Your task to perform on an android device: turn off airplane mode Image 0: 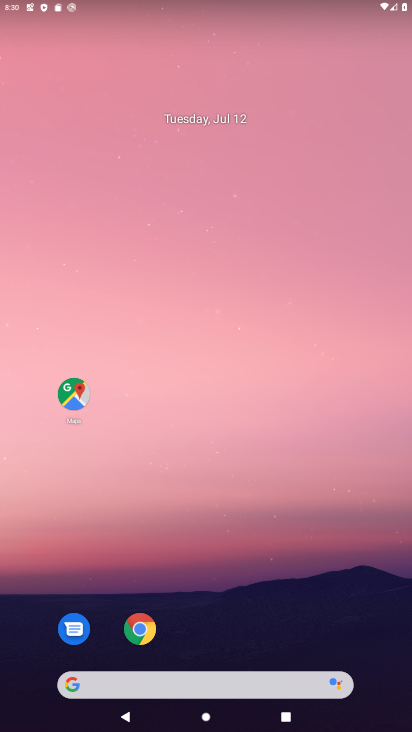
Step 0: drag from (259, 592) to (261, 122)
Your task to perform on an android device: turn off airplane mode Image 1: 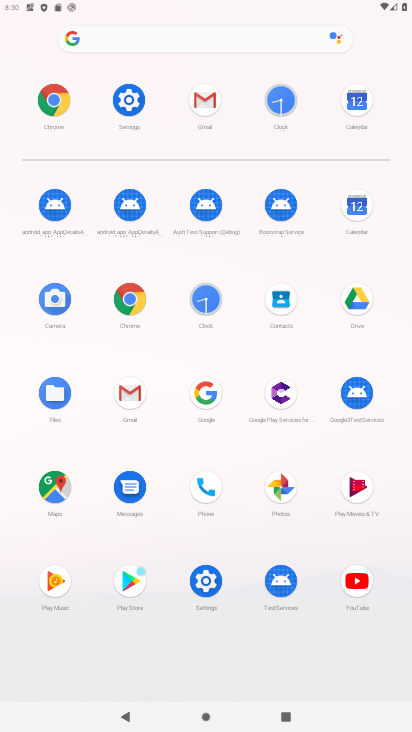
Step 1: click (119, 96)
Your task to perform on an android device: turn off airplane mode Image 2: 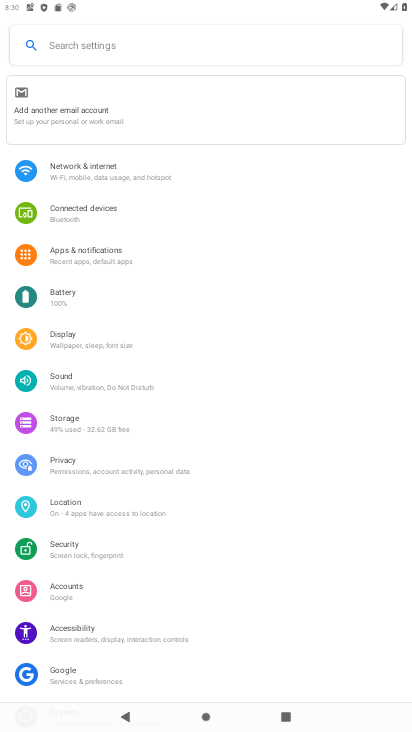
Step 2: click (104, 165)
Your task to perform on an android device: turn off airplane mode Image 3: 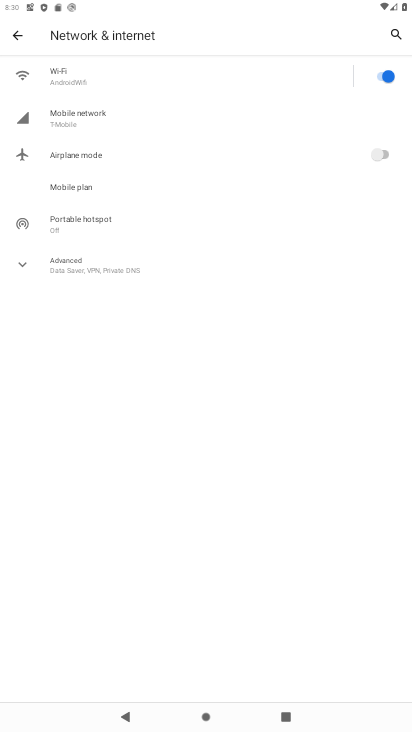
Step 3: click (380, 153)
Your task to perform on an android device: turn off airplane mode Image 4: 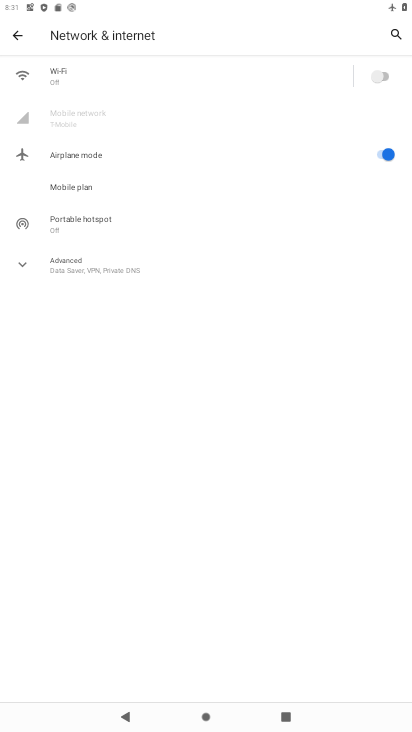
Step 4: task complete